Your task to perform on an android device: all mails in gmail Image 0: 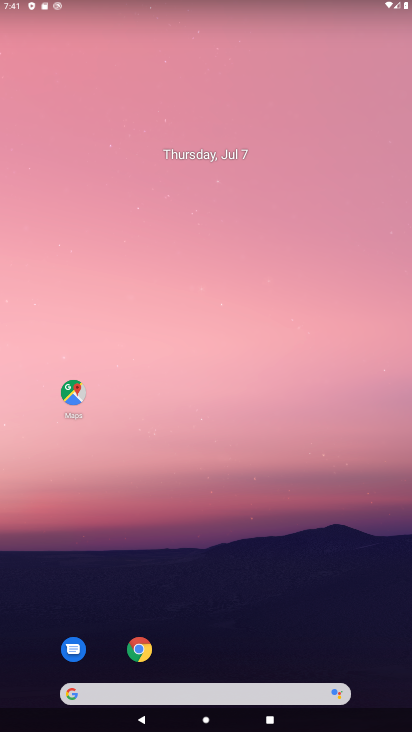
Step 0: drag from (230, 618) to (248, 2)
Your task to perform on an android device: all mails in gmail Image 1: 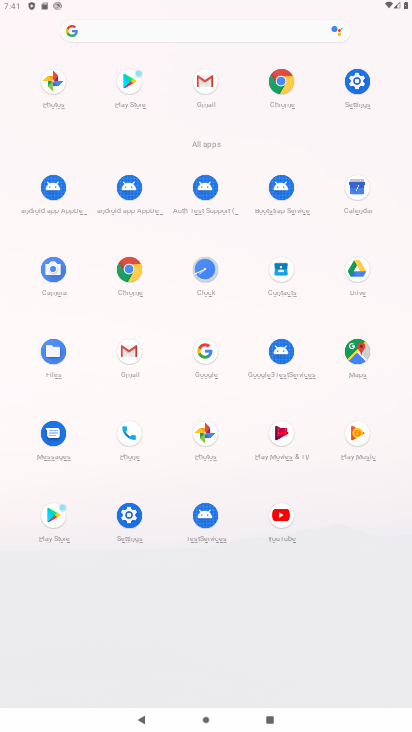
Step 1: click (131, 356)
Your task to perform on an android device: all mails in gmail Image 2: 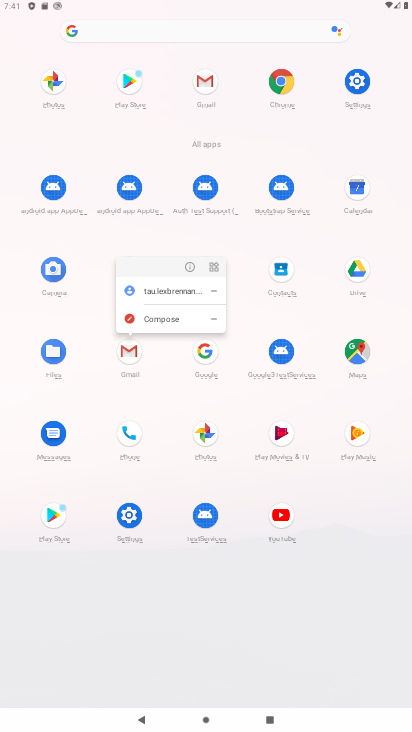
Step 2: click (130, 357)
Your task to perform on an android device: all mails in gmail Image 3: 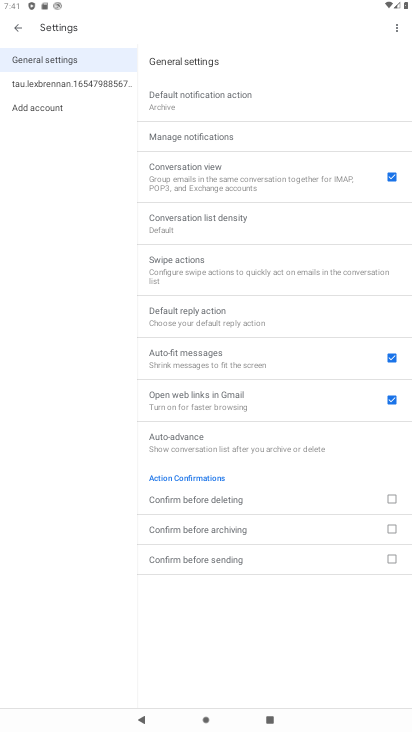
Step 3: click (20, 24)
Your task to perform on an android device: all mails in gmail Image 4: 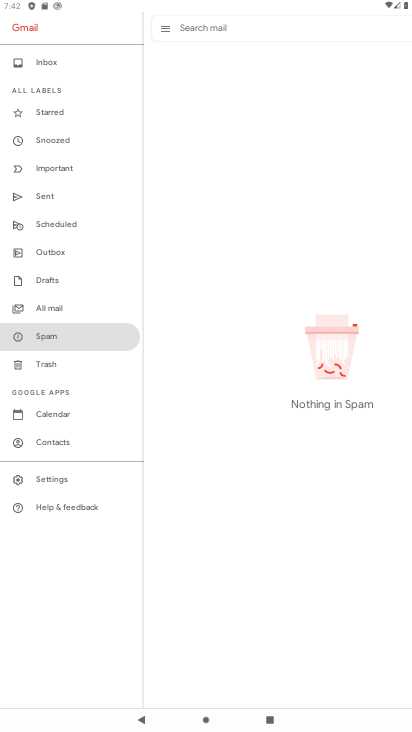
Step 4: drag from (68, 75) to (82, 678)
Your task to perform on an android device: all mails in gmail Image 5: 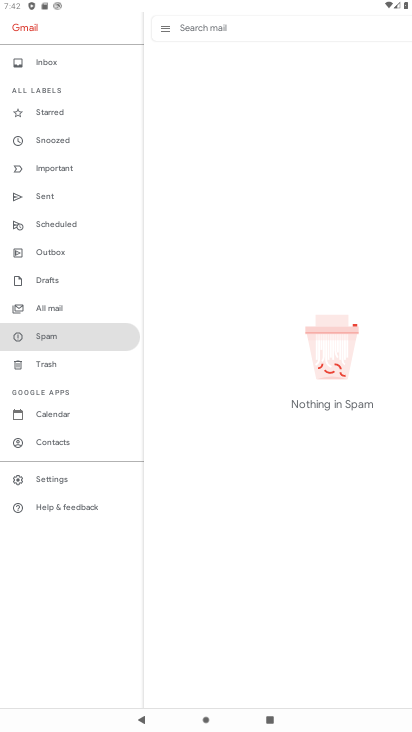
Step 5: click (60, 307)
Your task to perform on an android device: all mails in gmail Image 6: 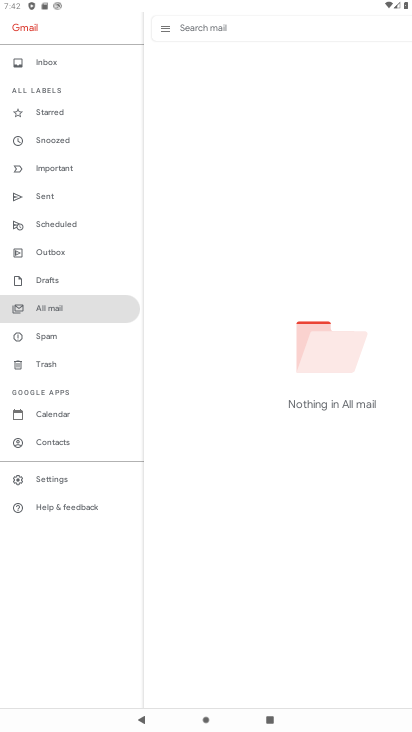
Step 6: task complete